Your task to perform on an android device: Open maps Image 0: 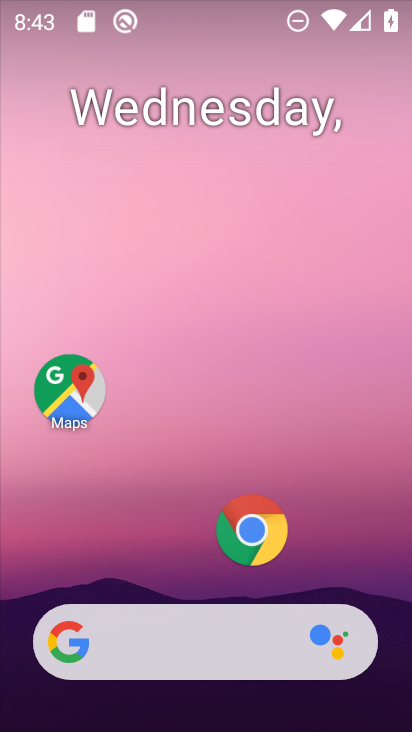
Step 0: click (62, 383)
Your task to perform on an android device: Open maps Image 1: 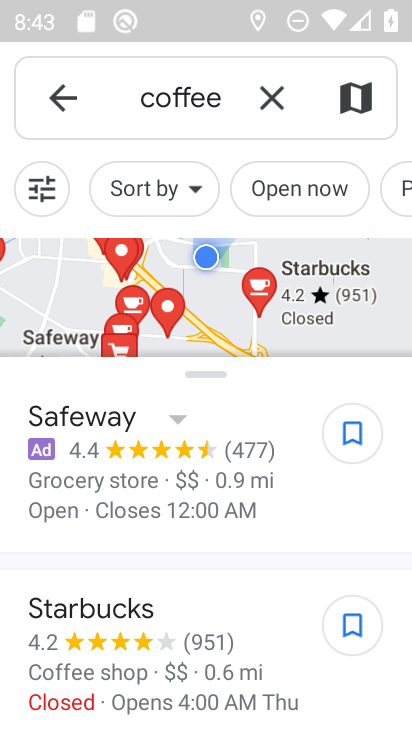
Step 1: task complete